Your task to perform on an android device: read, delete, or share a saved page in the chrome app Image 0: 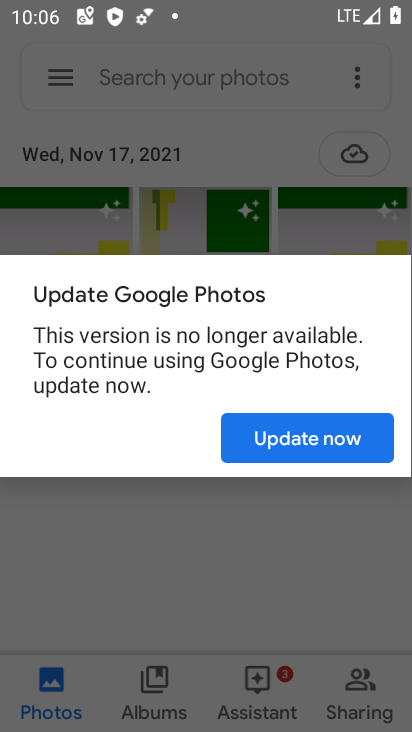
Step 0: press home button
Your task to perform on an android device: read, delete, or share a saved page in the chrome app Image 1: 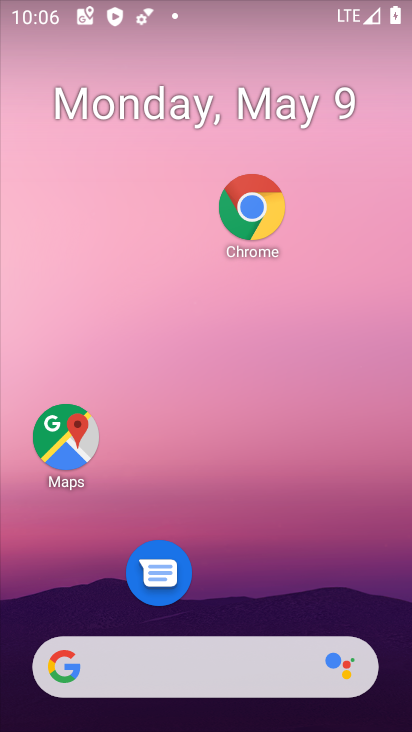
Step 1: click (267, 231)
Your task to perform on an android device: read, delete, or share a saved page in the chrome app Image 2: 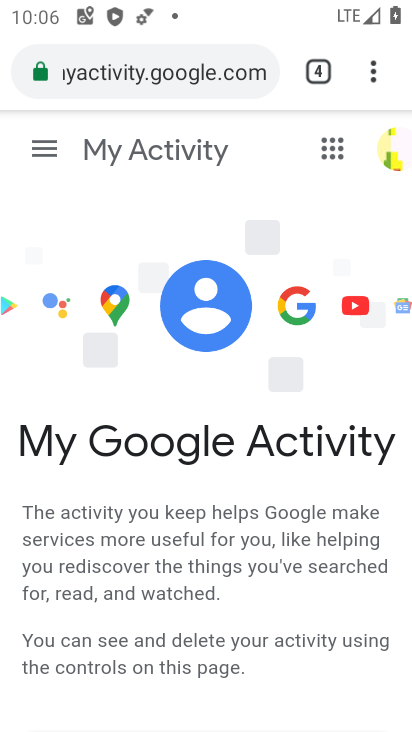
Step 2: click (383, 66)
Your task to perform on an android device: read, delete, or share a saved page in the chrome app Image 3: 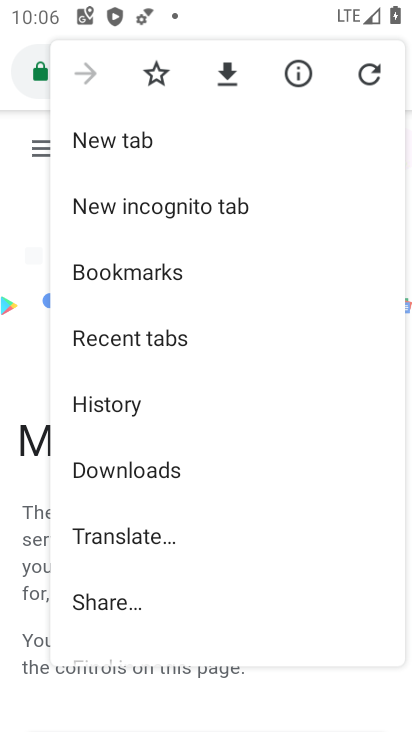
Step 3: click (178, 465)
Your task to perform on an android device: read, delete, or share a saved page in the chrome app Image 4: 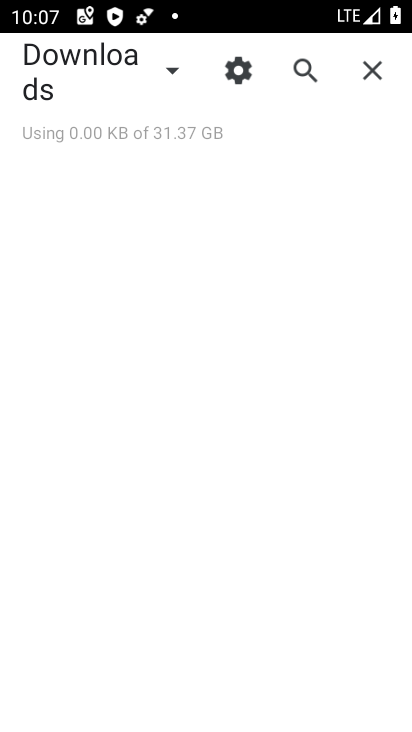
Step 4: click (173, 68)
Your task to perform on an android device: read, delete, or share a saved page in the chrome app Image 5: 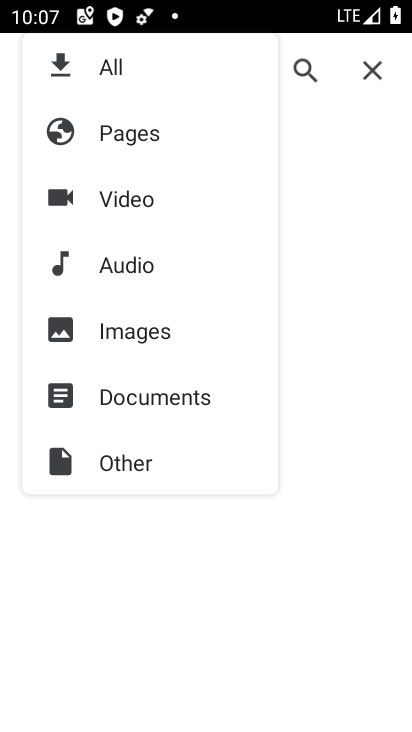
Step 5: click (126, 130)
Your task to perform on an android device: read, delete, or share a saved page in the chrome app Image 6: 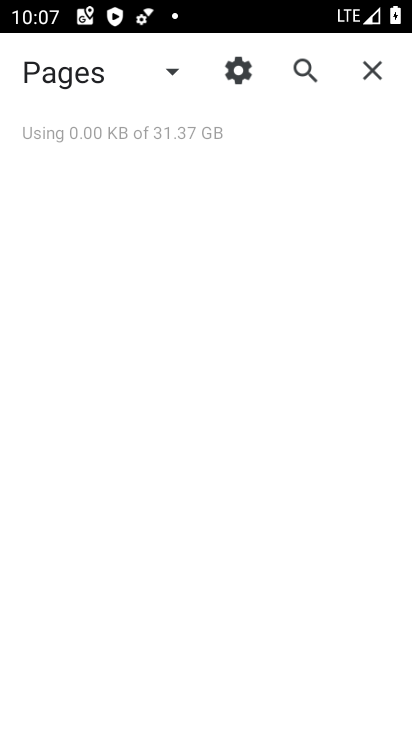
Step 6: task complete